Your task to perform on an android device: set the stopwatch Image 0: 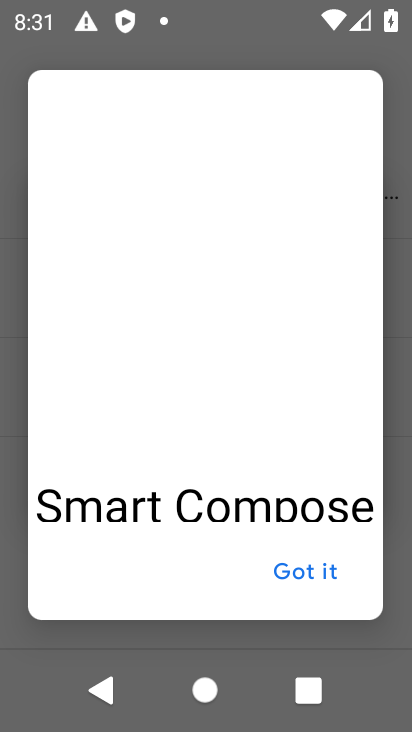
Step 0: press home button
Your task to perform on an android device: set the stopwatch Image 1: 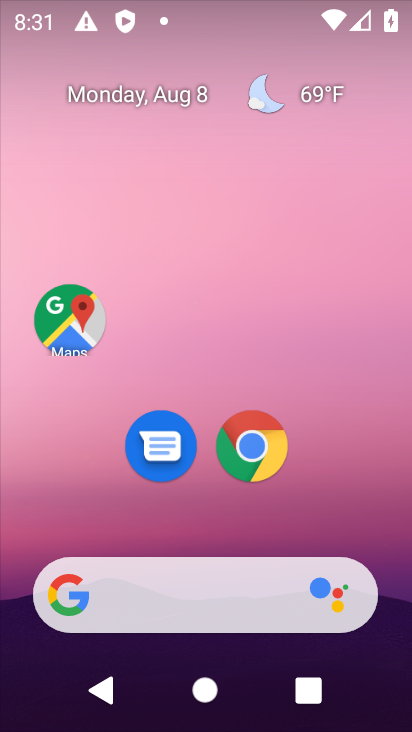
Step 1: drag from (335, 505) to (322, 48)
Your task to perform on an android device: set the stopwatch Image 2: 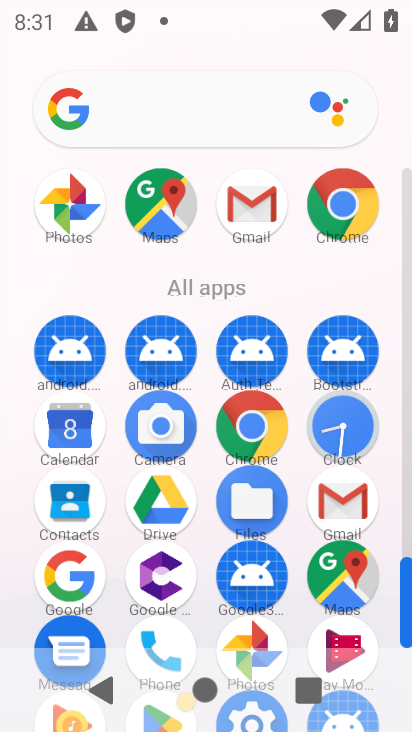
Step 2: click (338, 424)
Your task to perform on an android device: set the stopwatch Image 3: 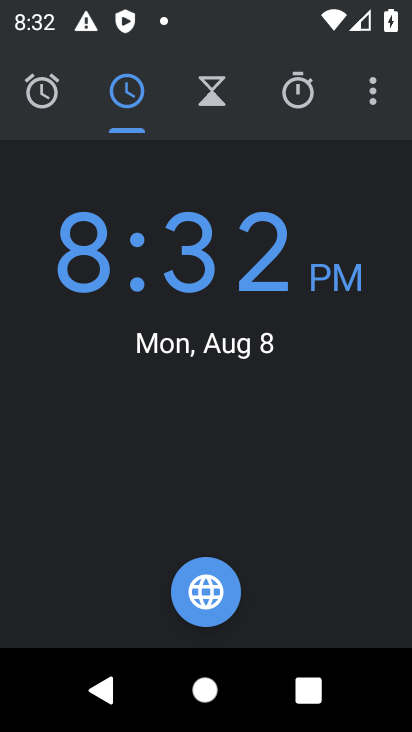
Step 3: click (294, 83)
Your task to perform on an android device: set the stopwatch Image 4: 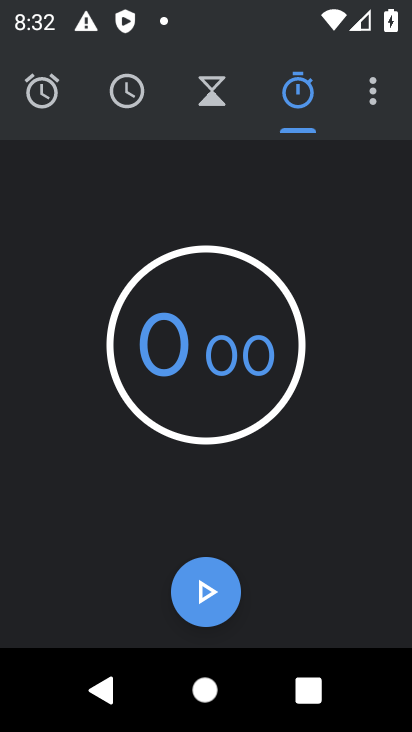
Step 4: task complete